Your task to perform on an android device: toggle sleep mode Image 0: 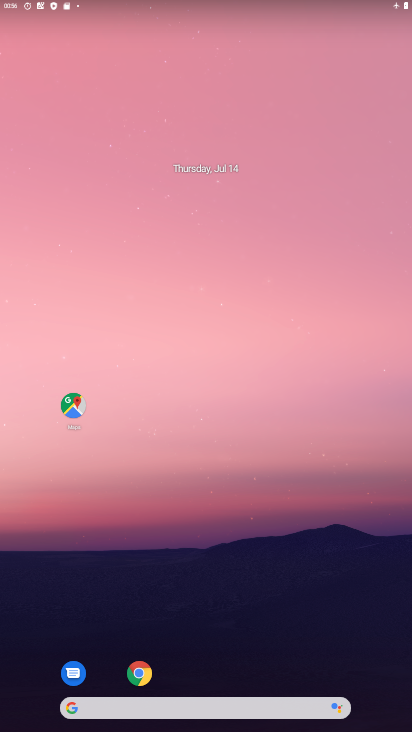
Step 0: drag from (225, 578) to (252, 285)
Your task to perform on an android device: toggle sleep mode Image 1: 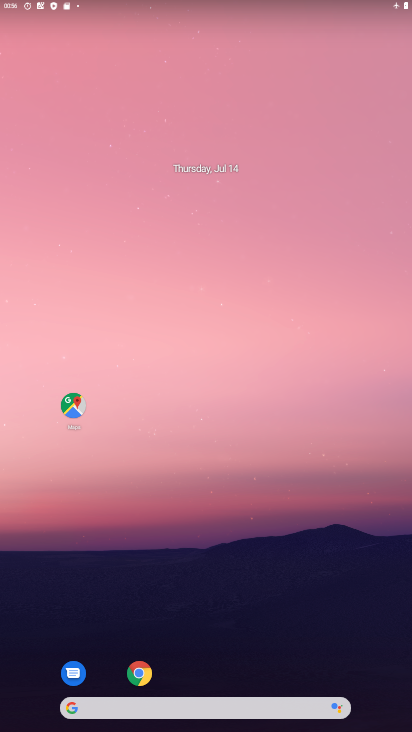
Step 1: drag from (223, 654) to (208, 202)
Your task to perform on an android device: toggle sleep mode Image 2: 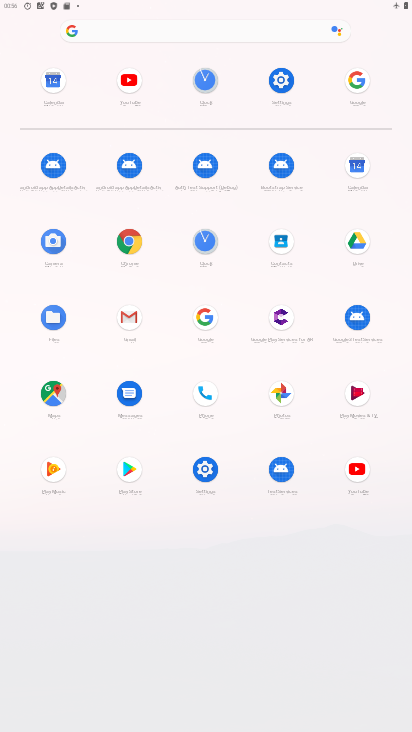
Step 2: click (272, 81)
Your task to perform on an android device: toggle sleep mode Image 3: 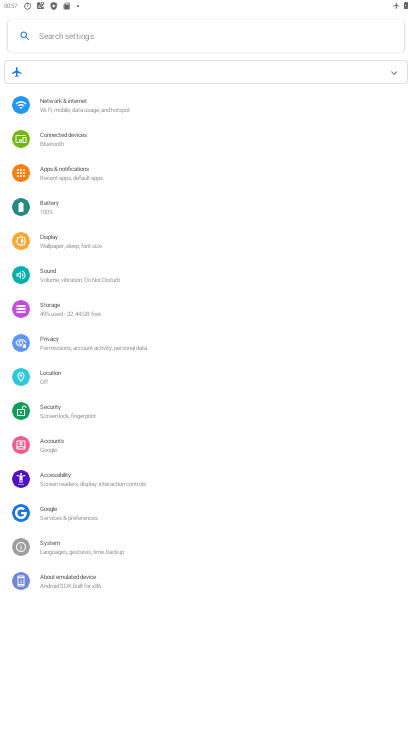
Step 3: click (64, 240)
Your task to perform on an android device: toggle sleep mode Image 4: 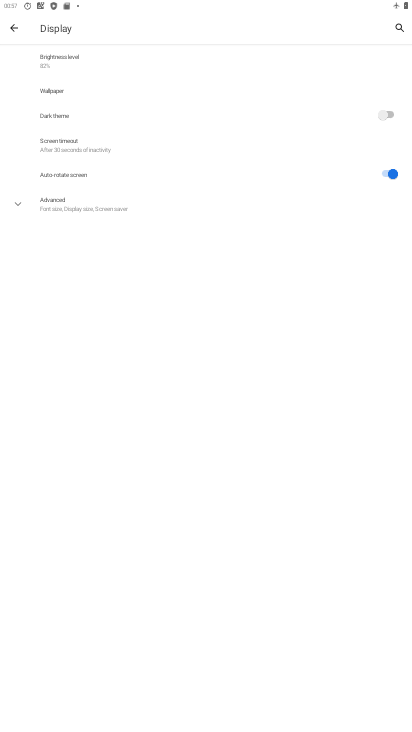
Step 4: click (120, 147)
Your task to perform on an android device: toggle sleep mode Image 5: 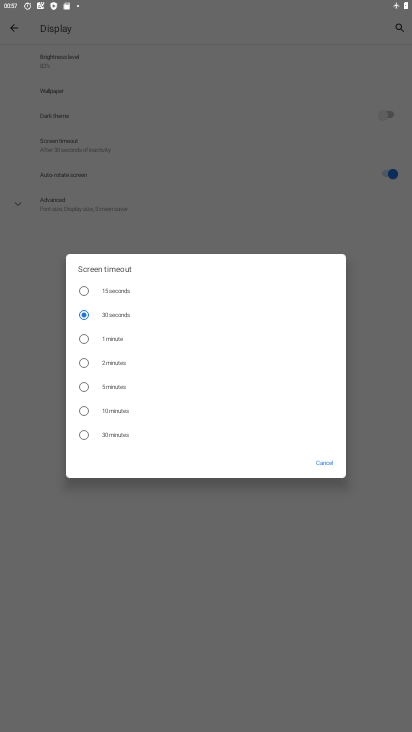
Step 5: click (118, 360)
Your task to perform on an android device: toggle sleep mode Image 6: 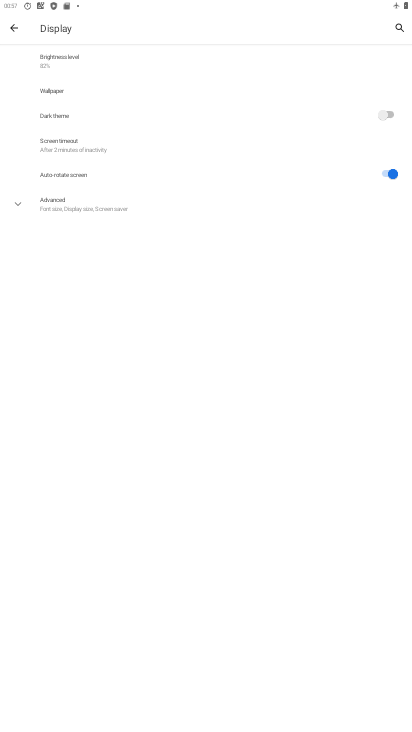
Step 6: task complete